Your task to perform on an android device: set the timer Image 0: 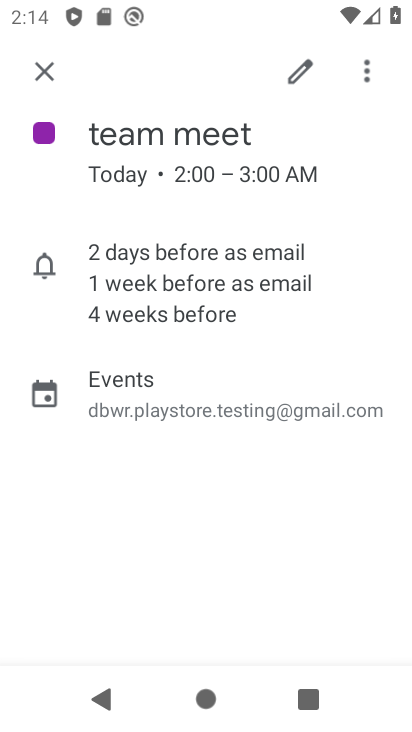
Step 0: press home button
Your task to perform on an android device: set the timer Image 1: 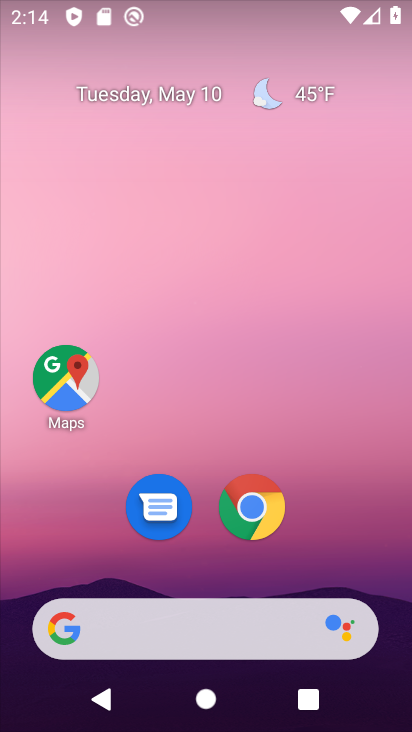
Step 1: drag from (348, 510) to (110, 128)
Your task to perform on an android device: set the timer Image 2: 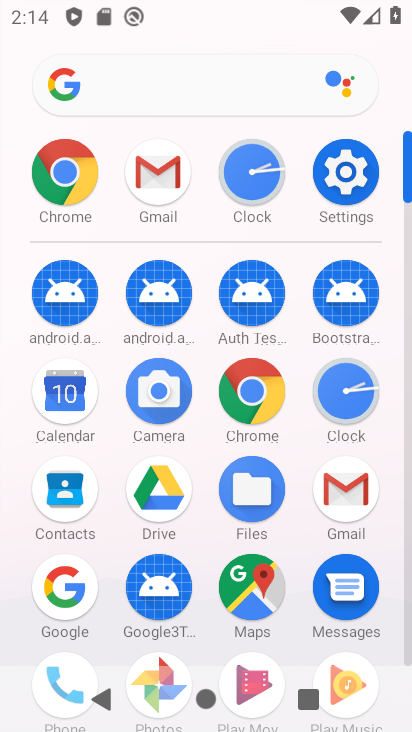
Step 2: click (247, 177)
Your task to perform on an android device: set the timer Image 3: 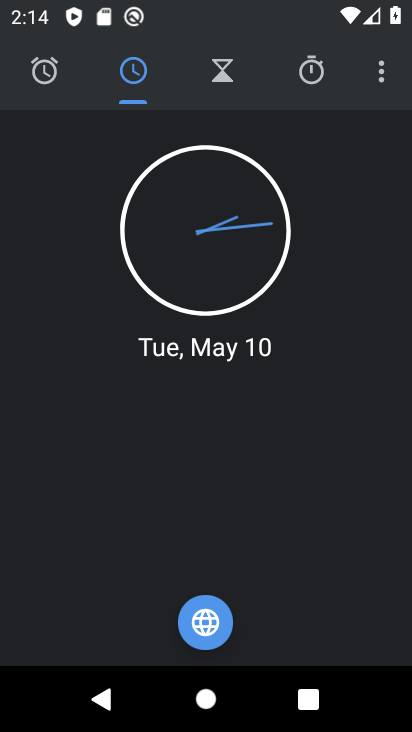
Step 3: click (217, 75)
Your task to perform on an android device: set the timer Image 4: 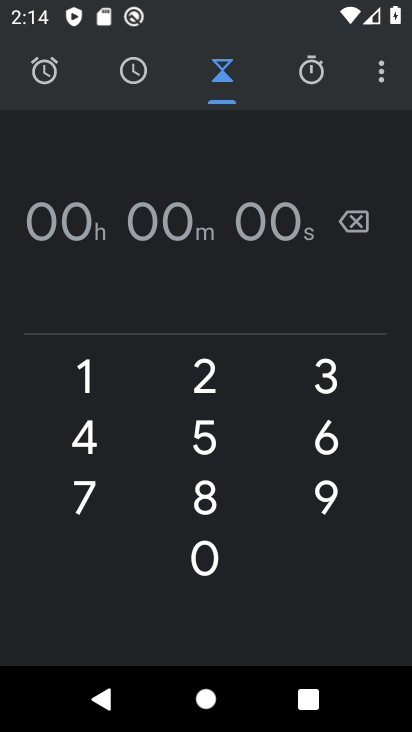
Step 4: click (320, 382)
Your task to perform on an android device: set the timer Image 5: 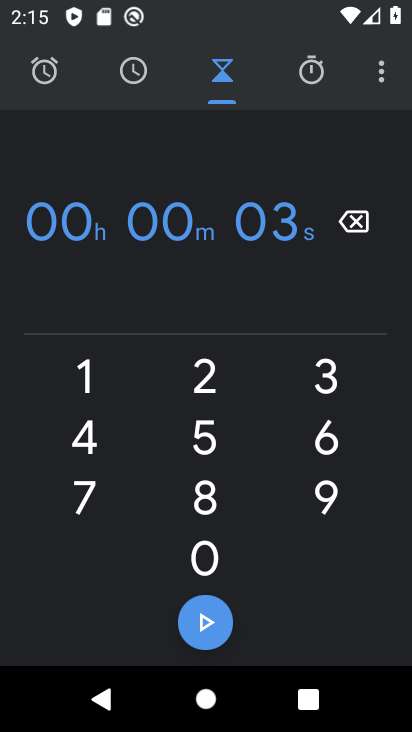
Step 5: click (85, 376)
Your task to perform on an android device: set the timer Image 6: 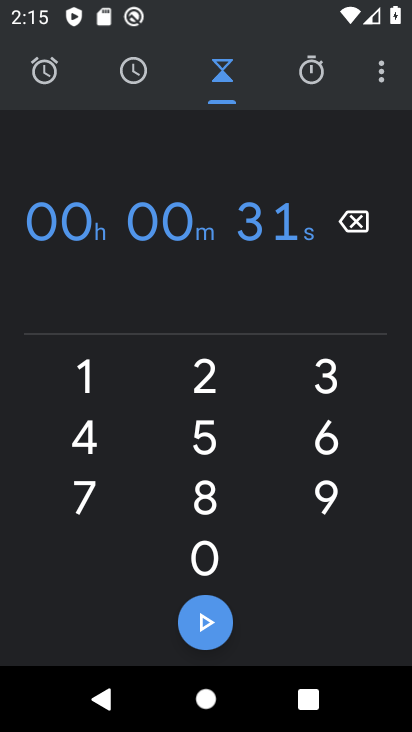
Step 6: click (212, 440)
Your task to perform on an android device: set the timer Image 7: 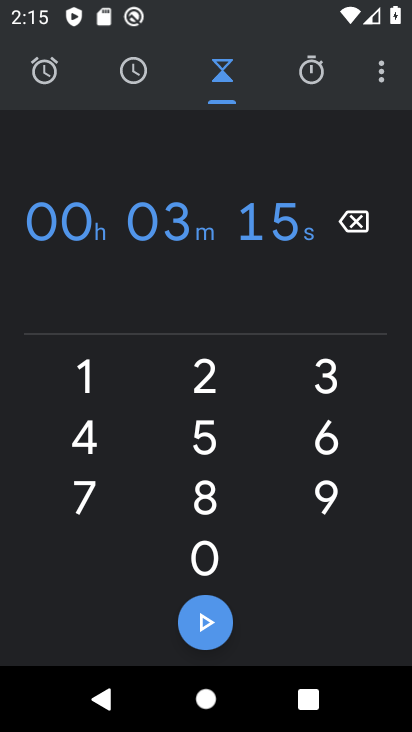
Step 7: click (203, 554)
Your task to perform on an android device: set the timer Image 8: 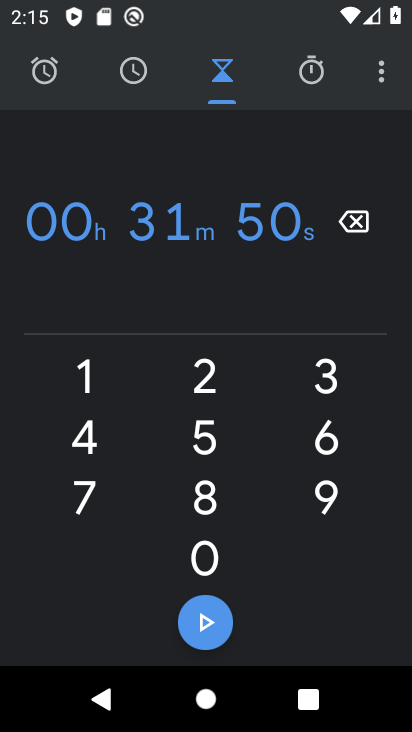
Step 8: click (203, 554)
Your task to perform on an android device: set the timer Image 9: 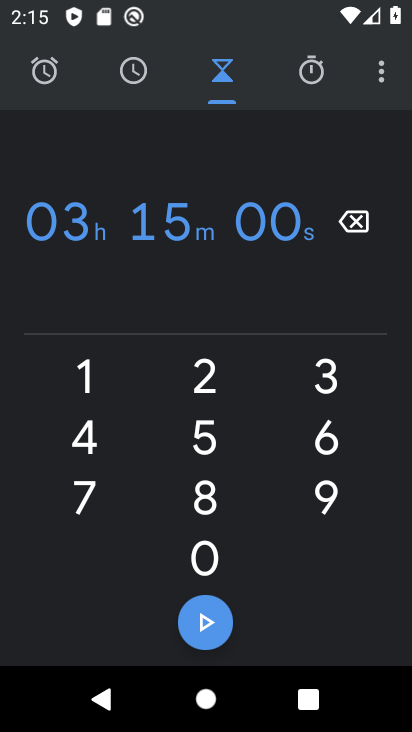
Step 9: click (220, 629)
Your task to perform on an android device: set the timer Image 10: 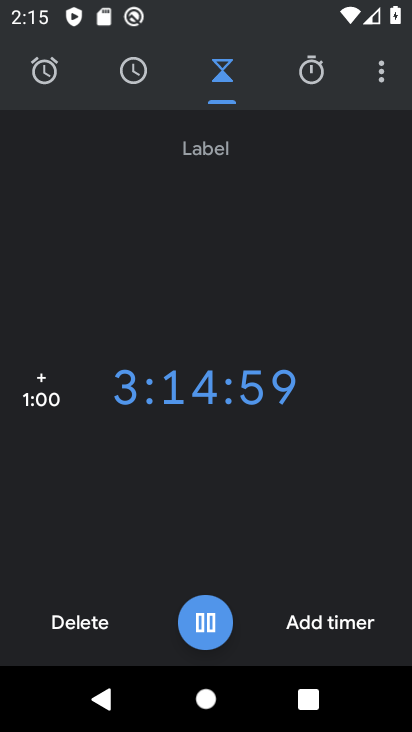
Step 10: click (342, 623)
Your task to perform on an android device: set the timer Image 11: 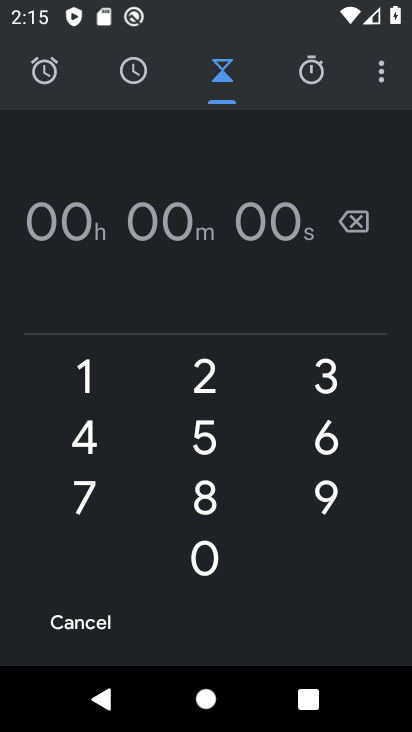
Step 11: task complete